Your task to perform on an android device: set the timer Image 0: 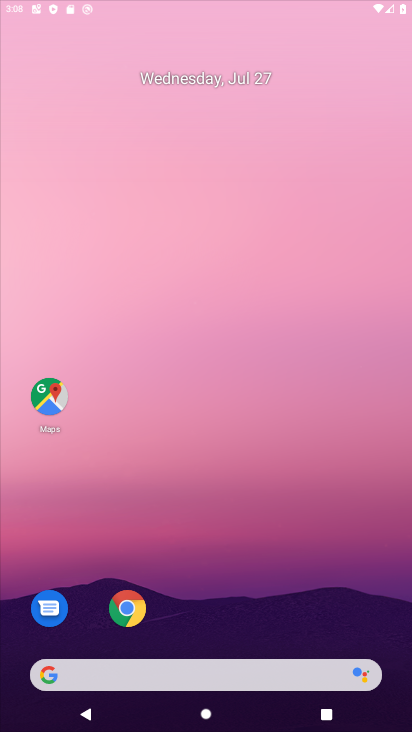
Step 0: drag from (390, 719) to (300, 218)
Your task to perform on an android device: set the timer Image 1: 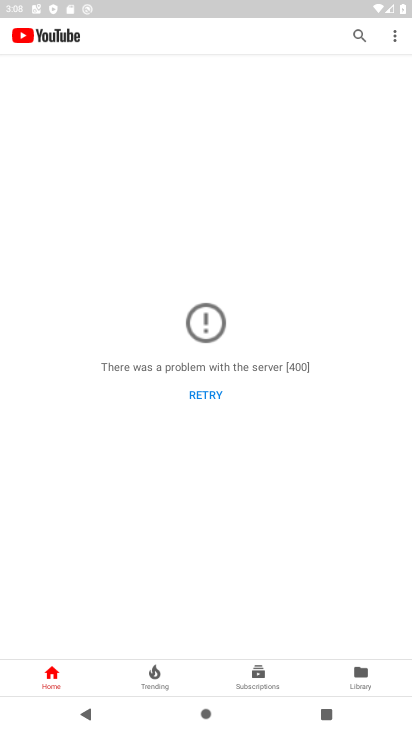
Step 1: press home button
Your task to perform on an android device: set the timer Image 2: 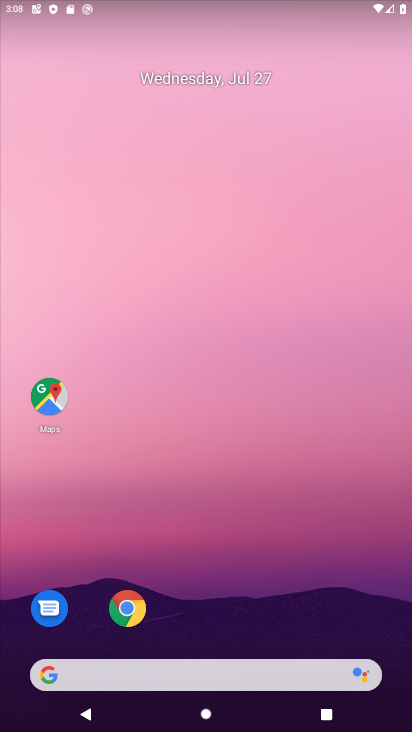
Step 2: drag from (382, 590) to (332, 57)
Your task to perform on an android device: set the timer Image 3: 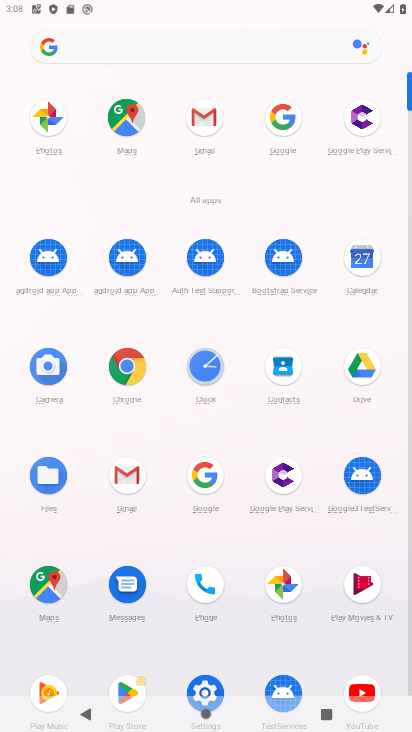
Step 3: click (201, 371)
Your task to perform on an android device: set the timer Image 4: 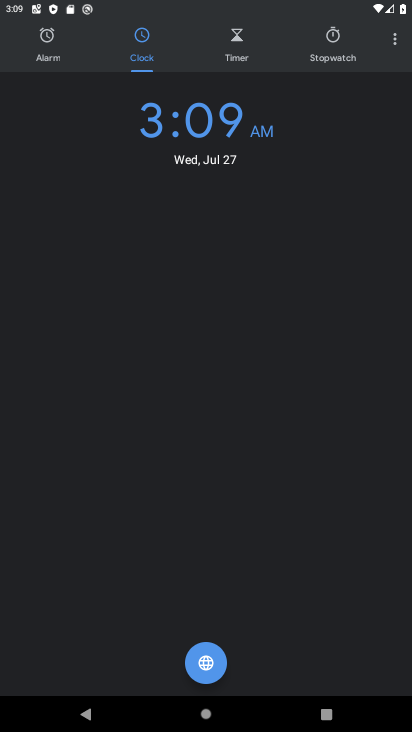
Step 4: click (241, 48)
Your task to perform on an android device: set the timer Image 5: 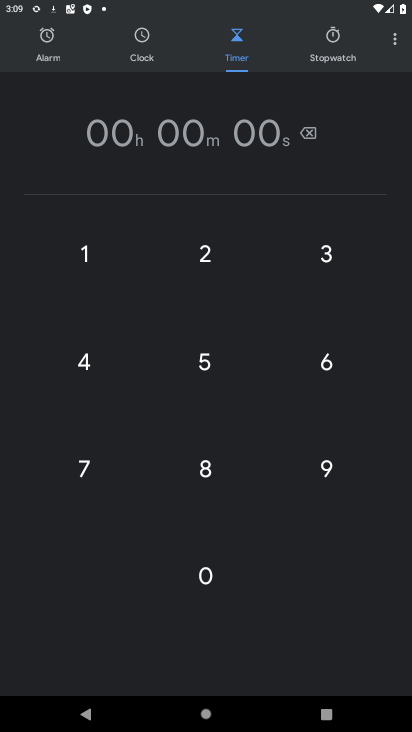
Step 5: click (202, 358)
Your task to perform on an android device: set the timer Image 6: 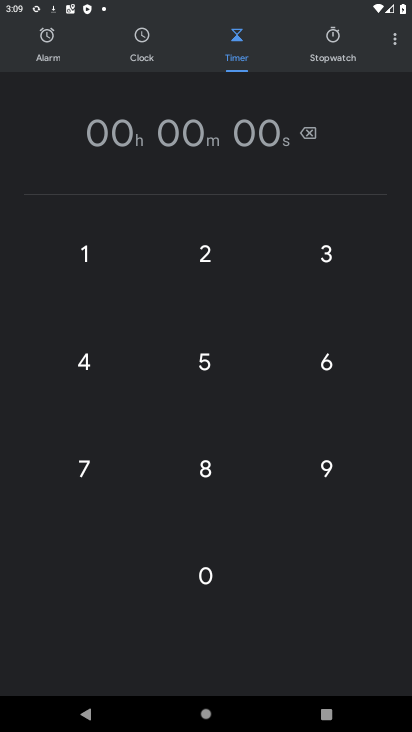
Step 6: click (202, 358)
Your task to perform on an android device: set the timer Image 7: 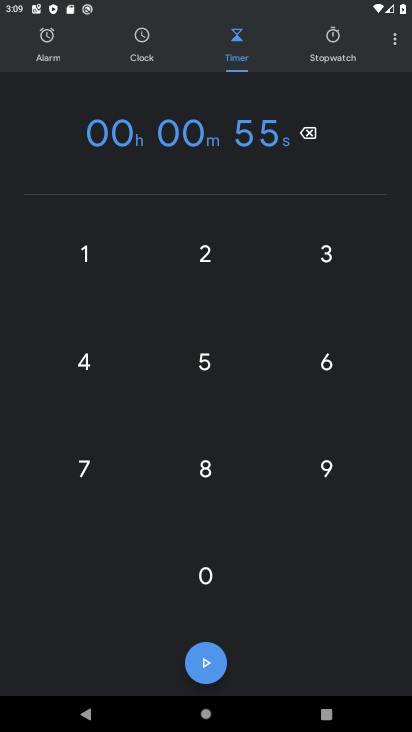
Step 7: click (208, 658)
Your task to perform on an android device: set the timer Image 8: 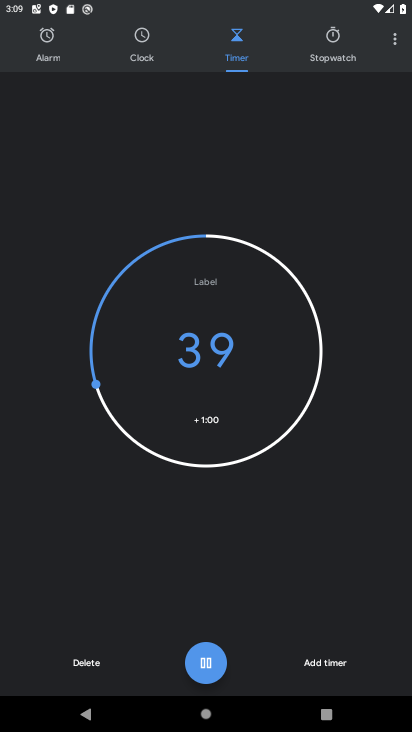
Step 8: task complete